Your task to perform on an android device: toggle notifications settings in the gmail app Image 0: 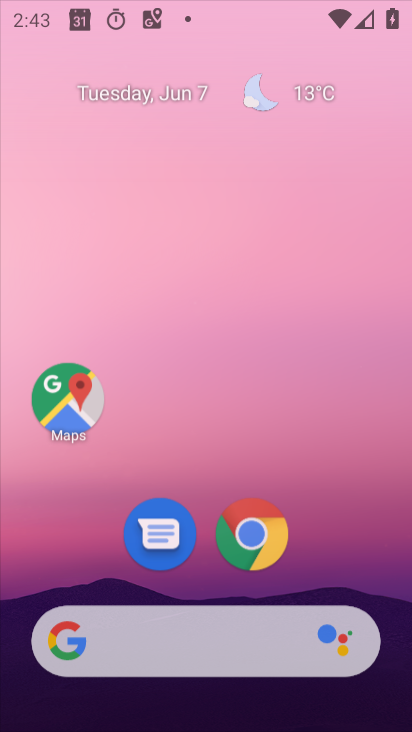
Step 0: press home button
Your task to perform on an android device: toggle notifications settings in the gmail app Image 1: 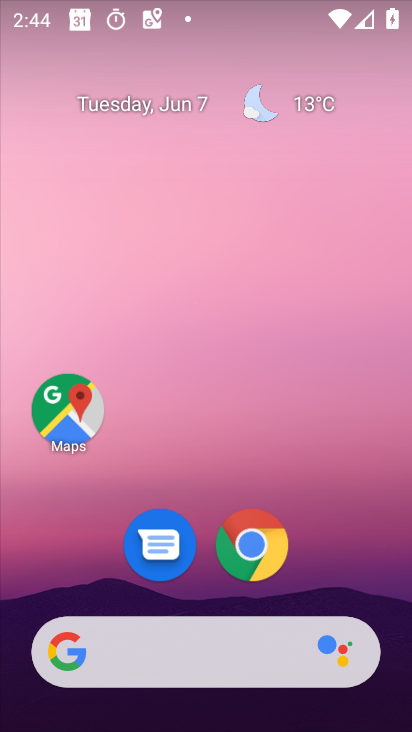
Step 1: drag from (377, 502) to (292, 40)
Your task to perform on an android device: toggle notifications settings in the gmail app Image 2: 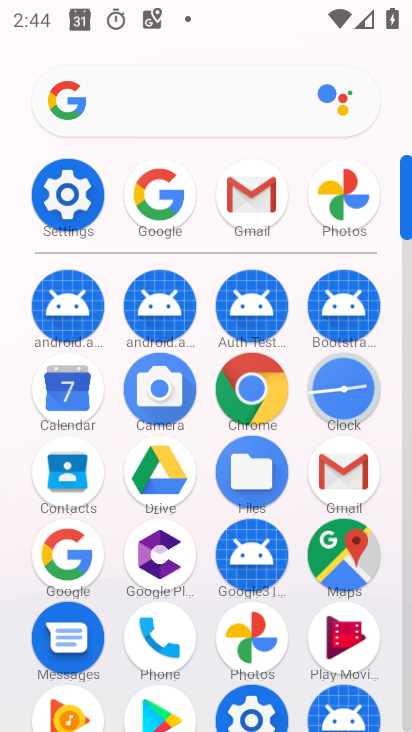
Step 2: click (350, 481)
Your task to perform on an android device: toggle notifications settings in the gmail app Image 3: 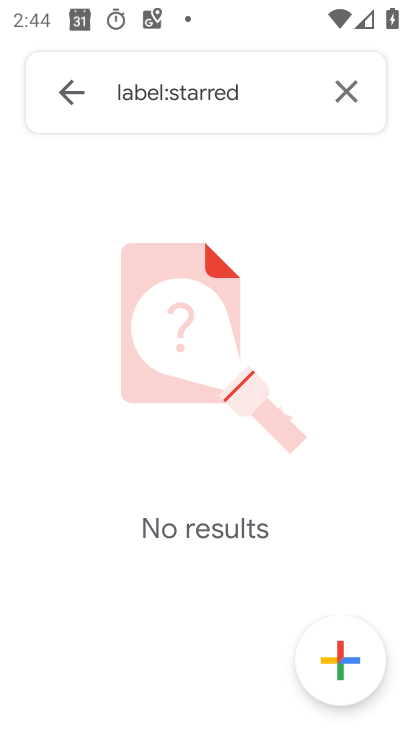
Step 3: click (67, 105)
Your task to perform on an android device: toggle notifications settings in the gmail app Image 4: 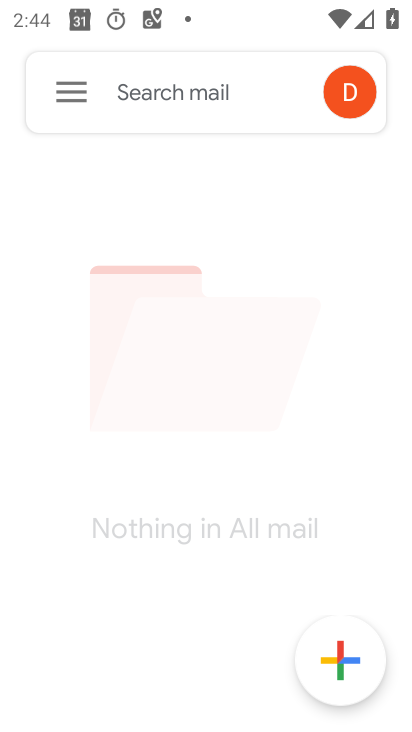
Step 4: click (73, 89)
Your task to perform on an android device: toggle notifications settings in the gmail app Image 5: 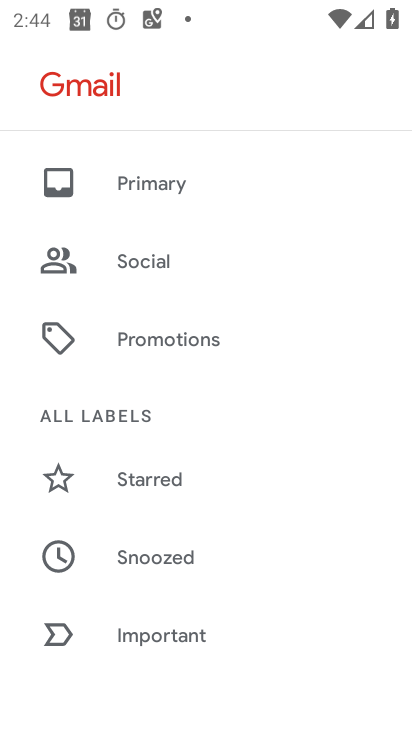
Step 5: drag from (290, 522) to (284, 4)
Your task to perform on an android device: toggle notifications settings in the gmail app Image 6: 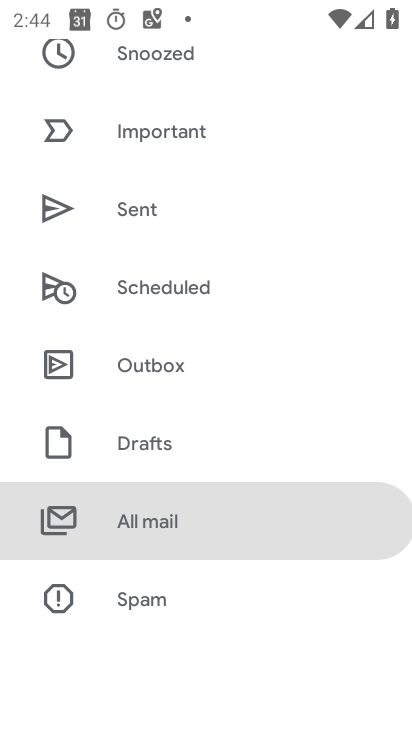
Step 6: drag from (277, 526) to (270, 73)
Your task to perform on an android device: toggle notifications settings in the gmail app Image 7: 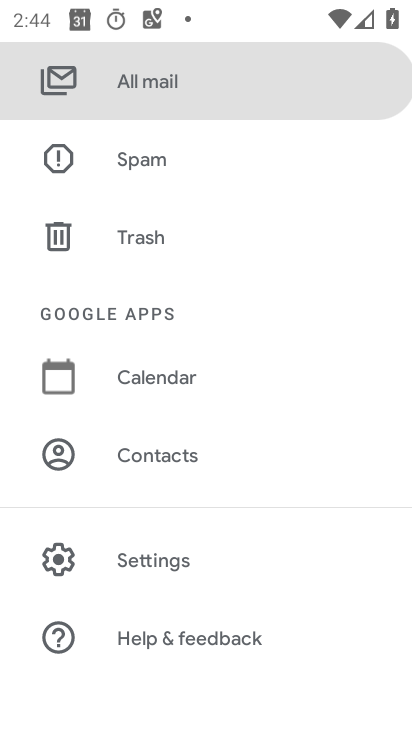
Step 7: click (194, 551)
Your task to perform on an android device: toggle notifications settings in the gmail app Image 8: 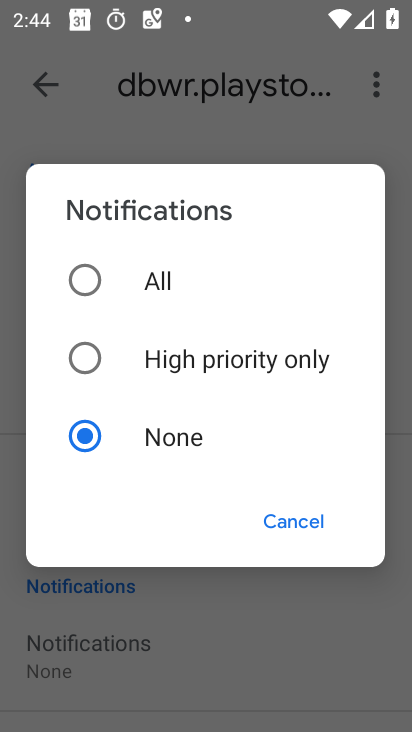
Step 8: click (144, 270)
Your task to perform on an android device: toggle notifications settings in the gmail app Image 9: 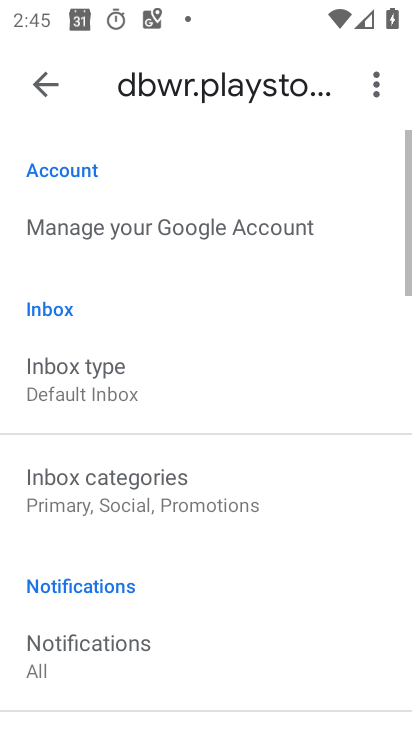
Step 9: task complete